Your task to perform on an android device: When is my next meeting? Image 0: 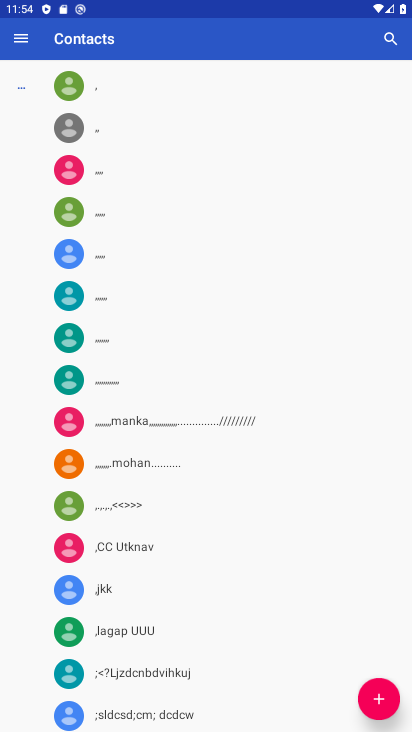
Step 0: press home button
Your task to perform on an android device: When is my next meeting? Image 1: 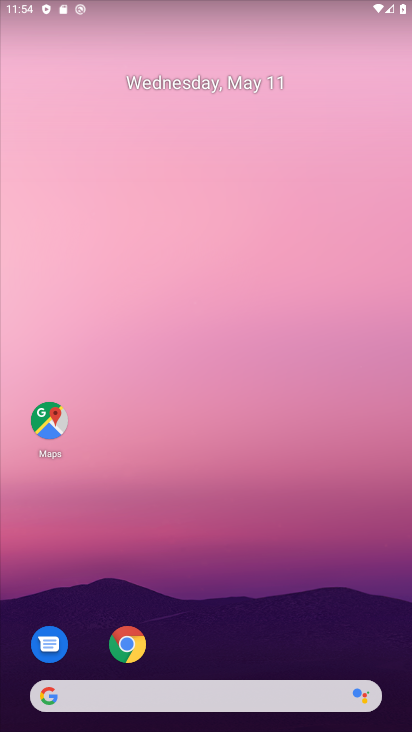
Step 1: click (167, 85)
Your task to perform on an android device: When is my next meeting? Image 2: 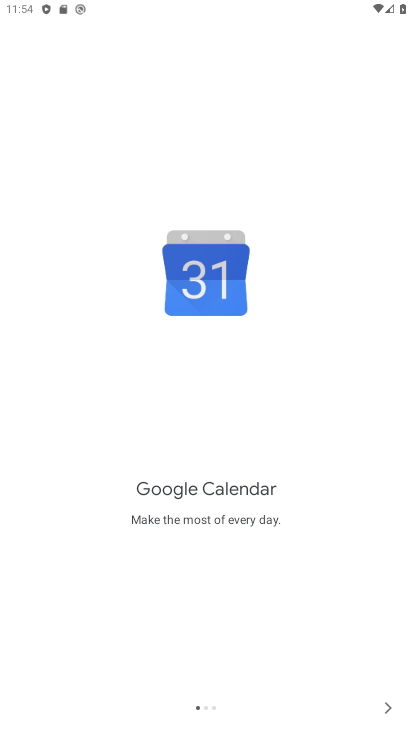
Step 2: click (388, 702)
Your task to perform on an android device: When is my next meeting? Image 3: 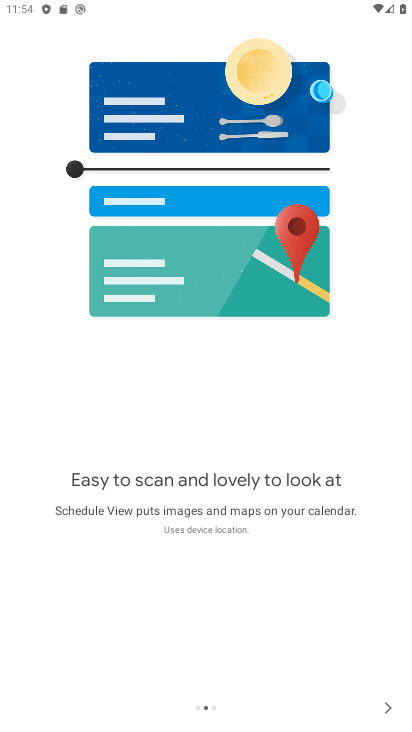
Step 3: click (386, 702)
Your task to perform on an android device: When is my next meeting? Image 4: 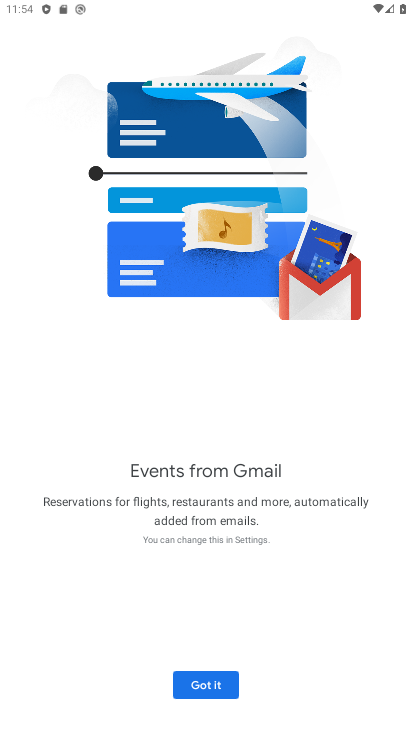
Step 4: click (204, 676)
Your task to perform on an android device: When is my next meeting? Image 5: 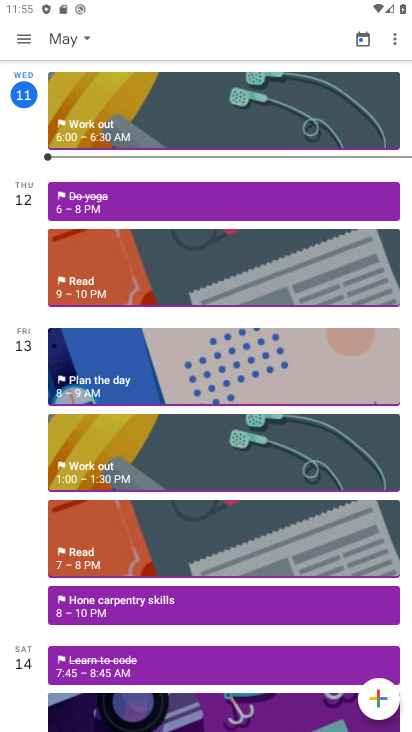
Step 5: task complete